Your task to perform on an android device: Open Google Maps and go to "Timeline" Image 0: 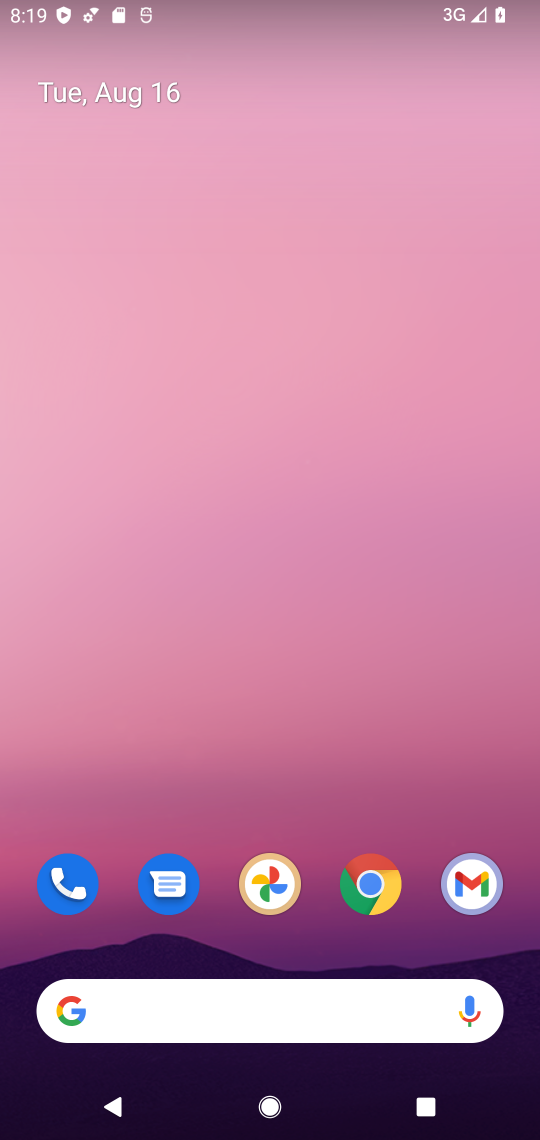
Step 0: drag from (424, 953) to (358, 271)
Your task to perform on an android device: Open Google Maps and go to "Timeline" Image 1: 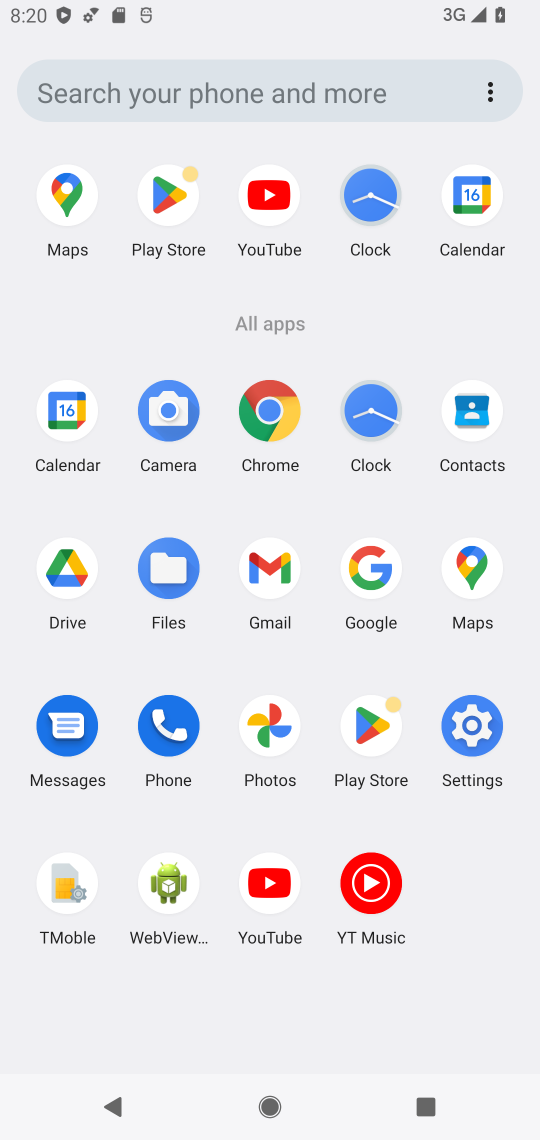
Step 1: click (466, 564)
Your task to perform on an android device: Open Google Maps and go to "Timeline" Image 2: 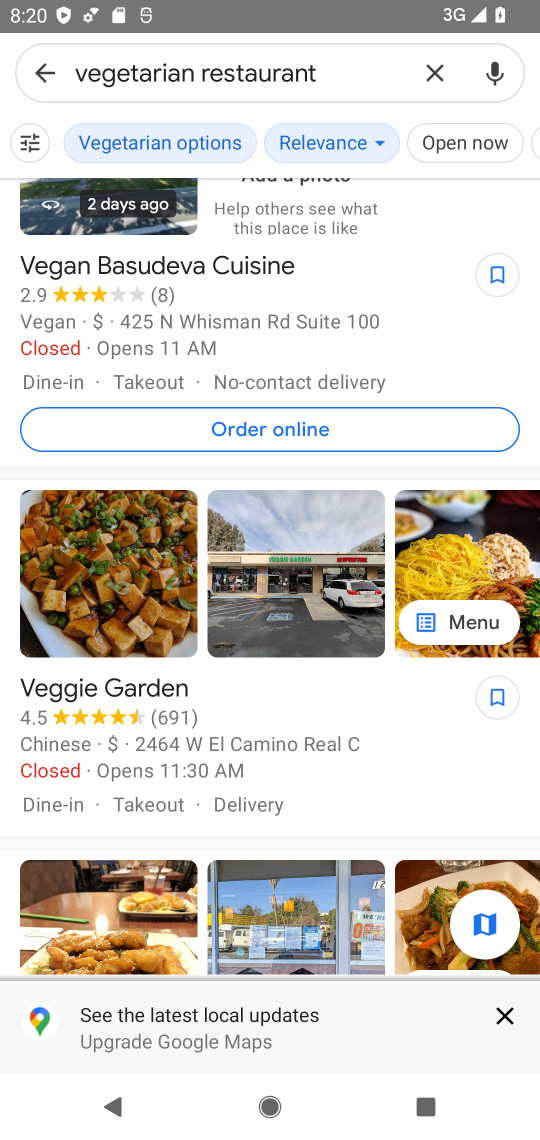
Step 2: click (433, 64)
Your task to perform on an android device: Open Google Maps and go to "Timeline" Image 3: 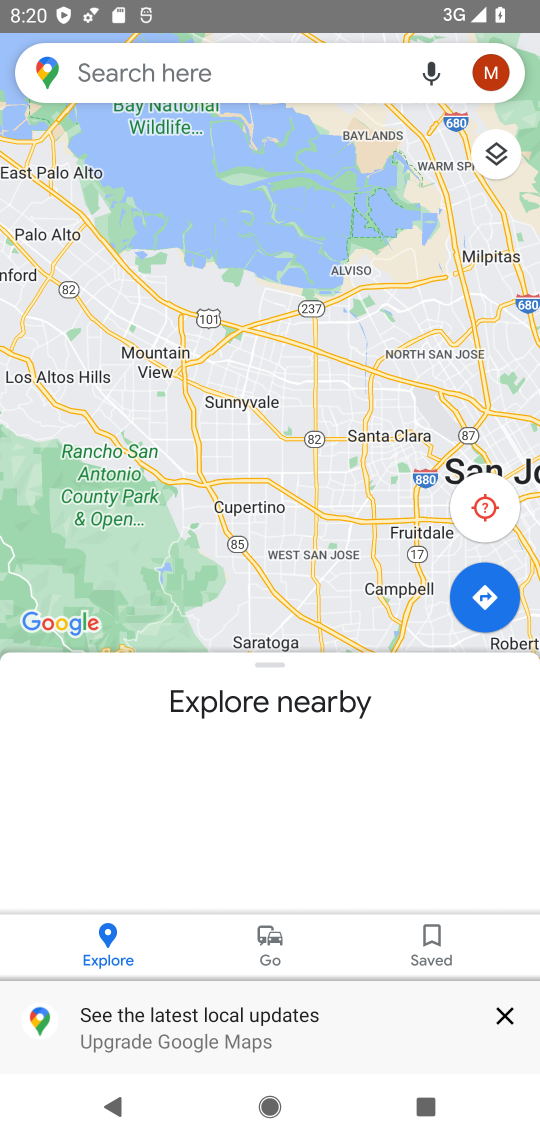
Step 3: click (275, 948)
Your task to perform on an android device: Open Google Maps and go to "Timeline" Image 4: 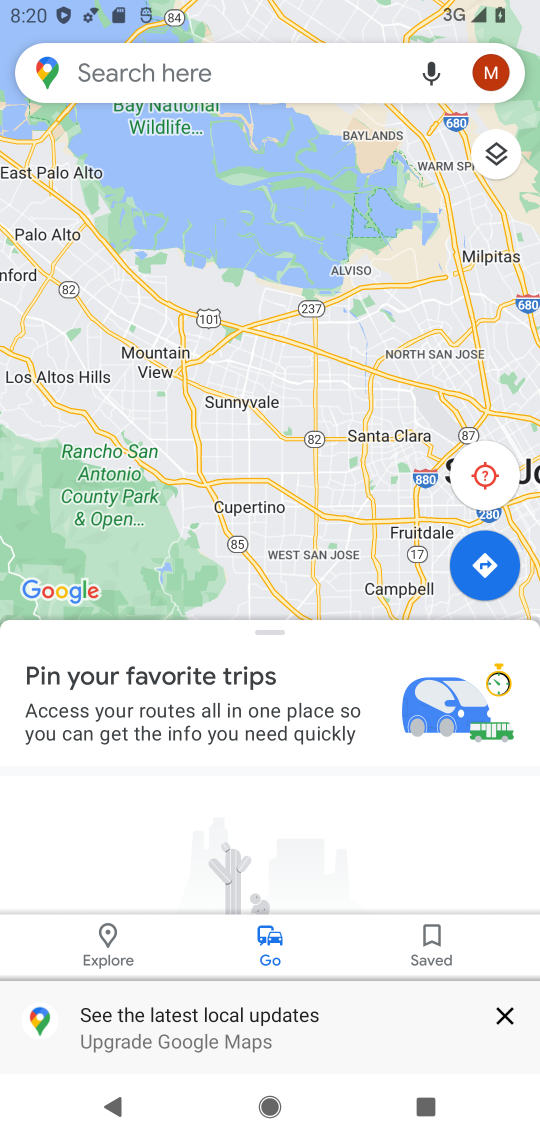
Step 4: click (107, 949)
Your task to perform on an android device: Open Google Maps and go to "Timeline" Image 5: 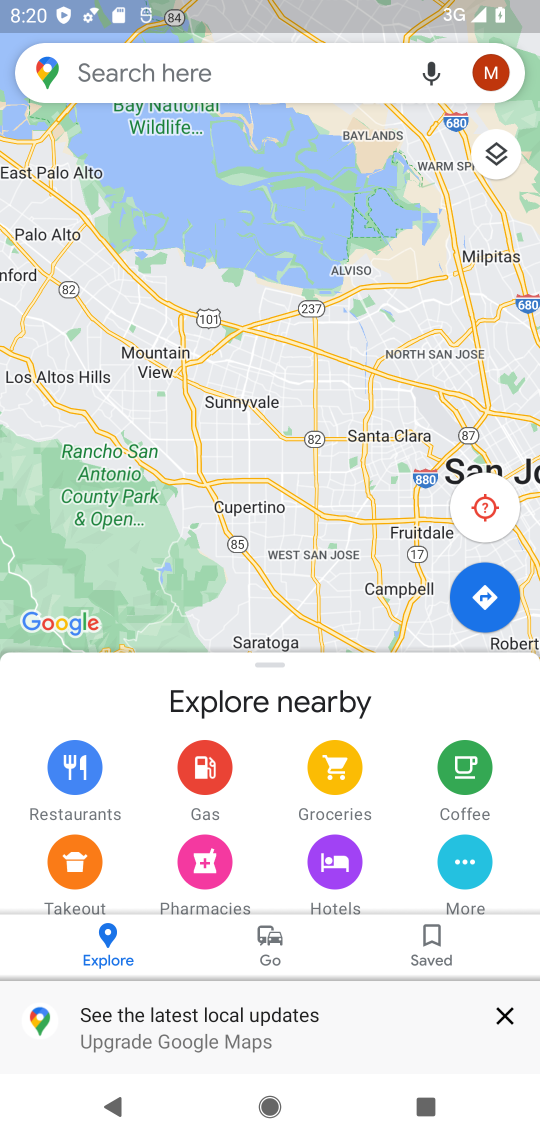
Step 5: click (425, 948)
Your task to perform on an android device: Open Google Maps and go to "Timeline" Image 6: 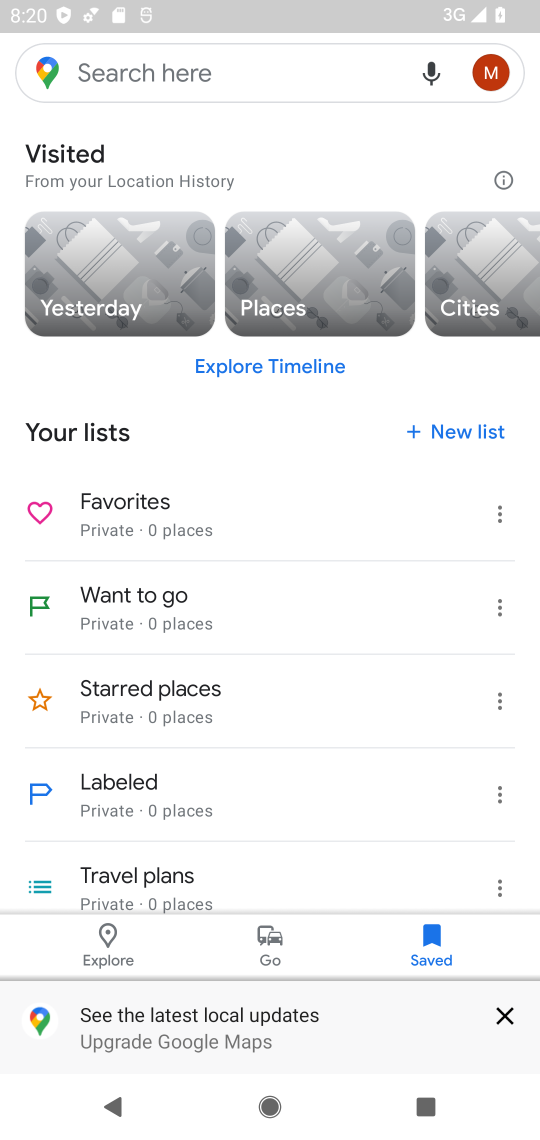
Step 6: drag from (301, 823) to (284, 196)
Your task to perform on an android device: Open Google Maps and go to "Timeline" Image 7: 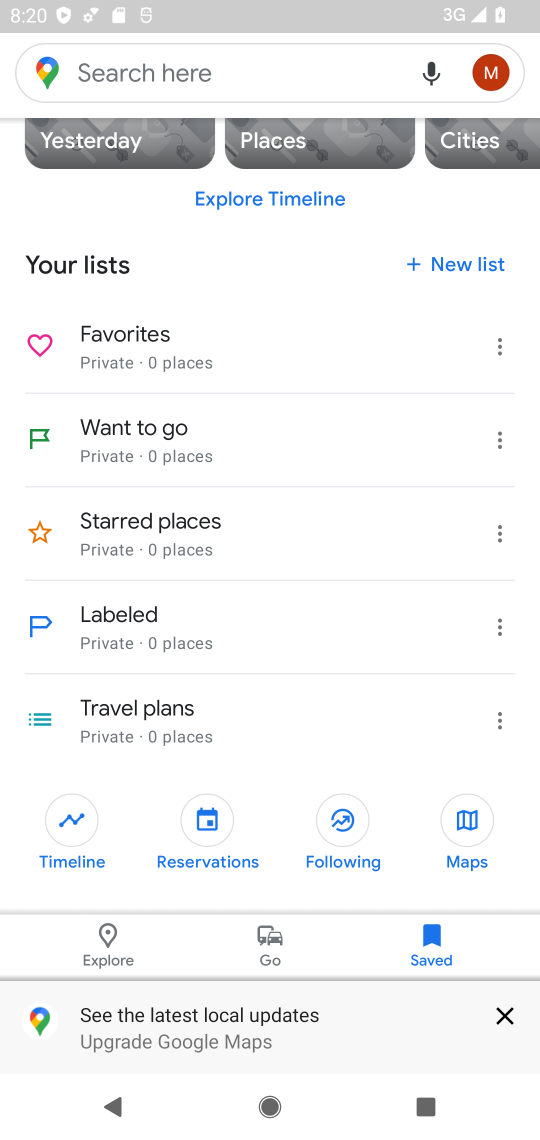
Step 7: click (105, 956)
Your task to perform on an android device: Open Google Maps and go to "Timeline" Image 8: 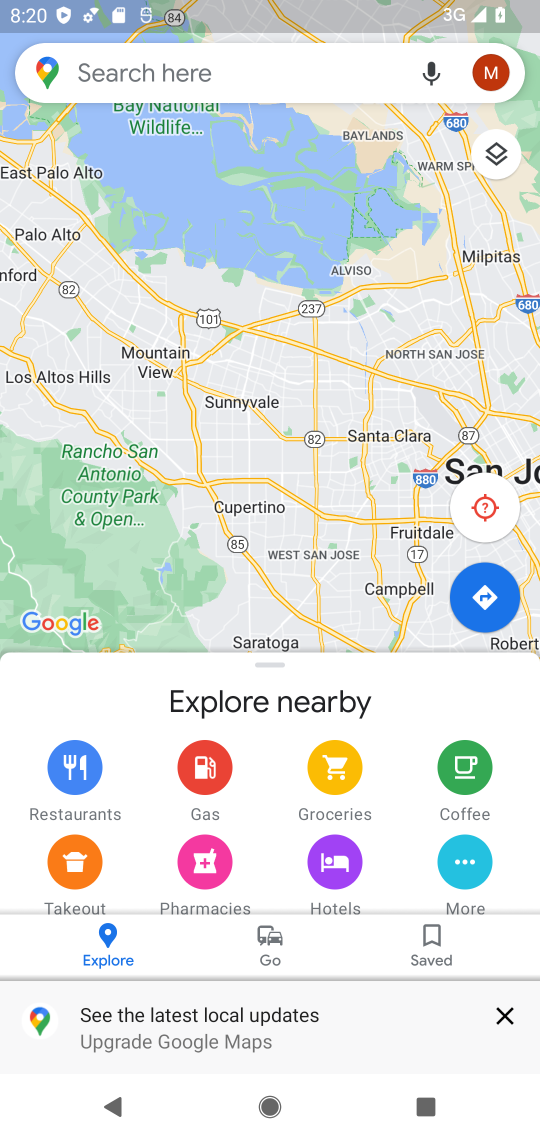
Step 8: click (495, 1014)
Your task to perform on an android device: Open Google Maps and go to "Timeline" Image 9: 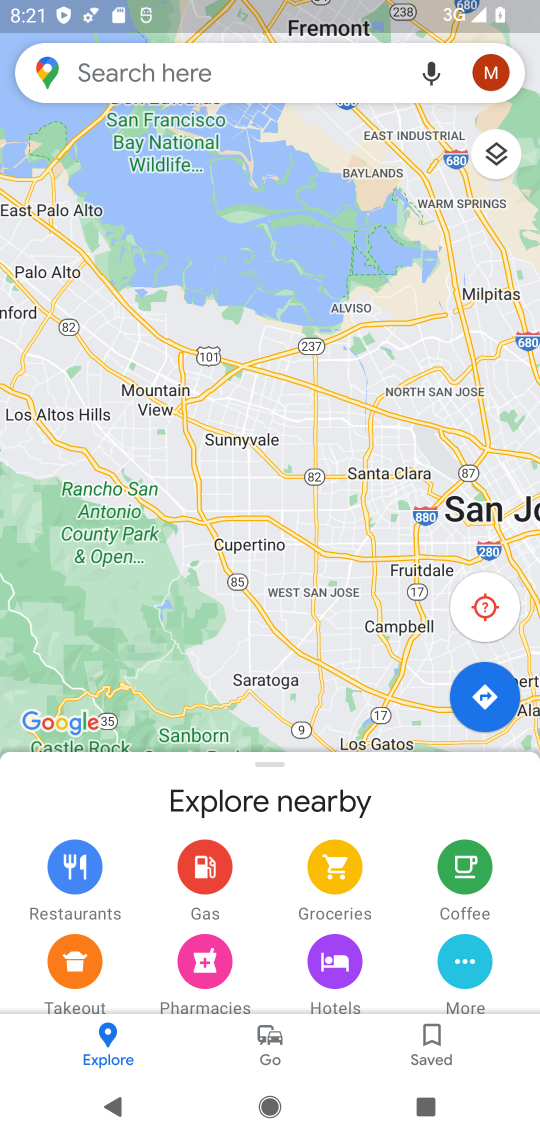
Step 9: click (498, 76)
Your task to perform on an android device: Open Google Maps and go to "Timeline" Image 10: 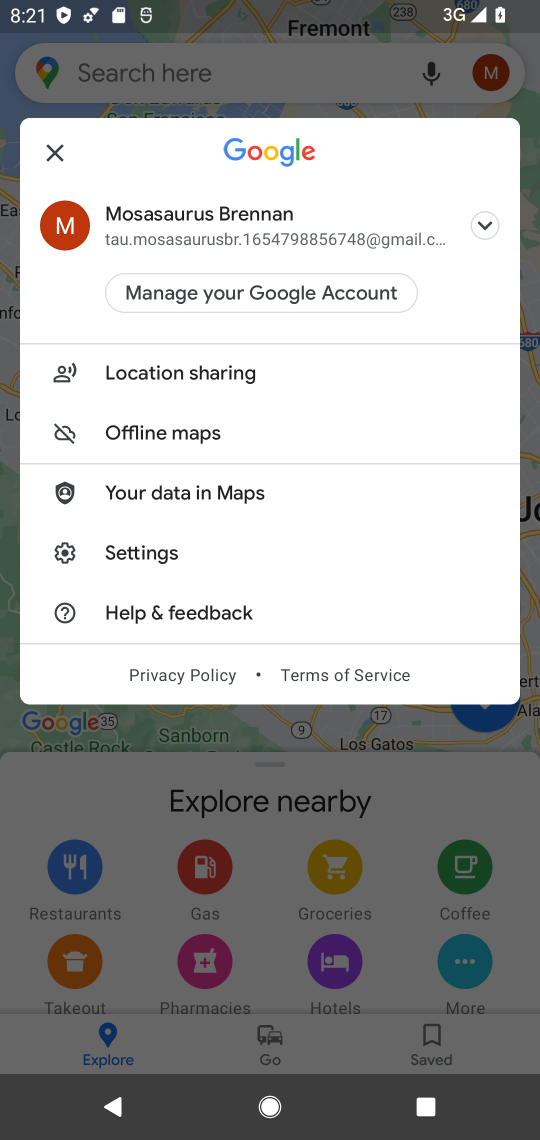
Step 10: click (157, 557)
Your task to perform on an android device: Open Google Maps and go to "Timeline" Image 11: 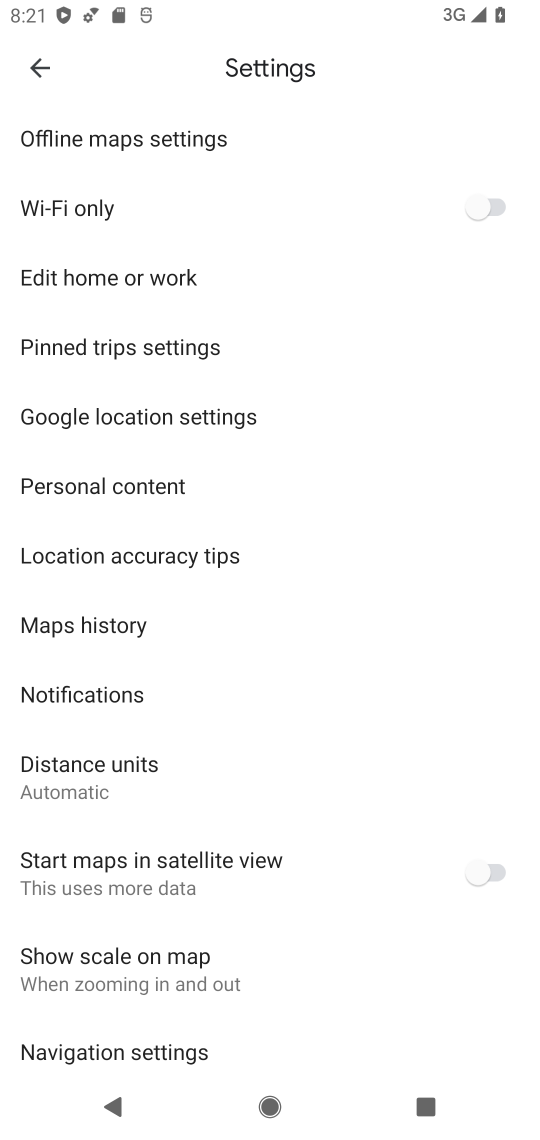
Step 11: drag from (316, 774) to (287, 344)
Your task to perform on an android device: Open Google Maps and go to "Timeline" Image 12: 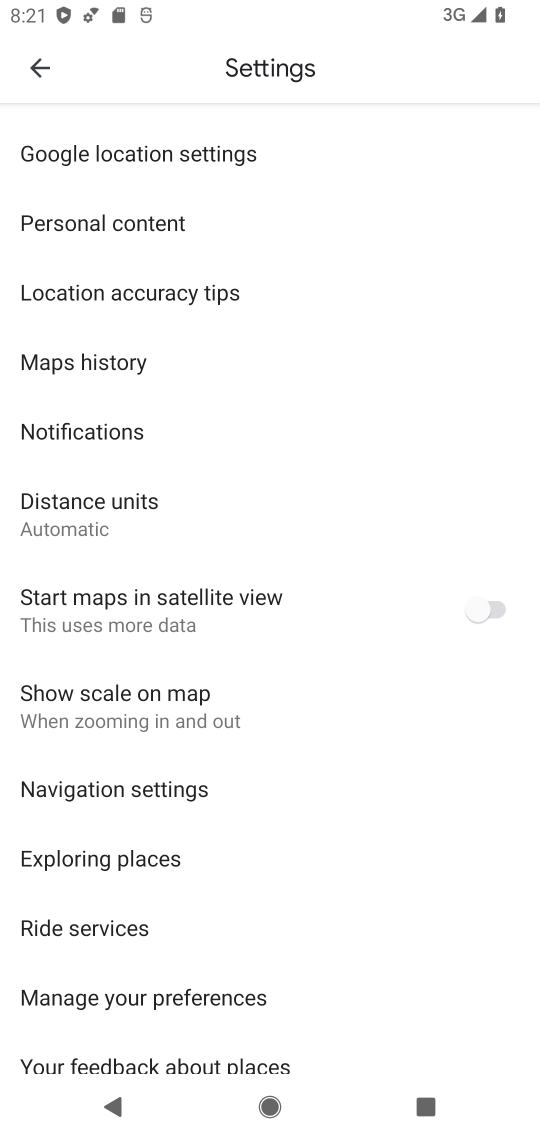
Step 12: drag from (366, 1000) to (363, 397)
Your task to perform on an android device: Open Google Maps and go to "Timeline" Image 13: 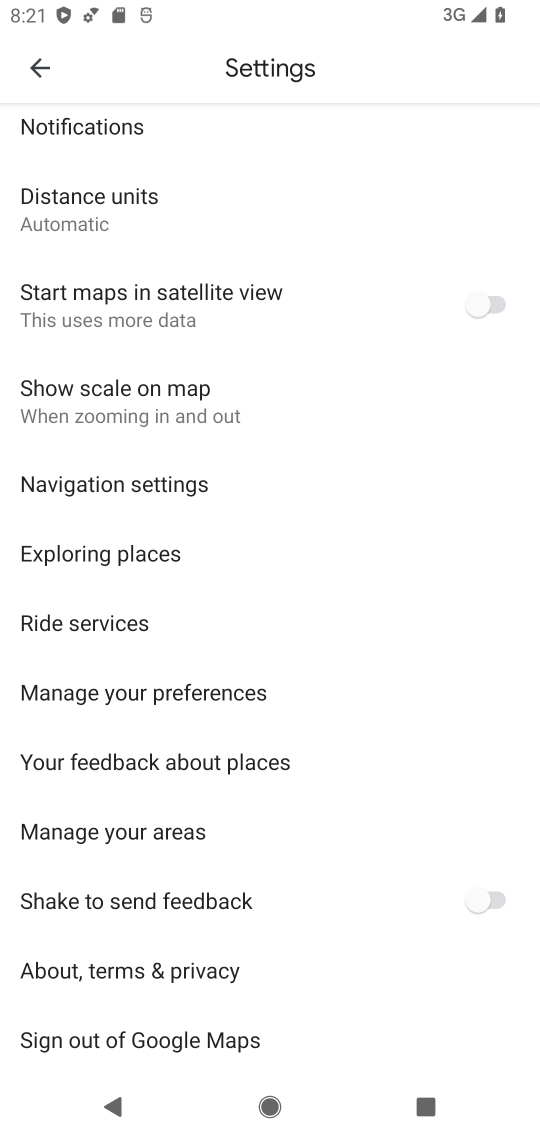
Step 13: drag from (335, 985) to (361, 342)
Your task to perform on an android device: Open Google Maps and go to "Timeline" Image 14: 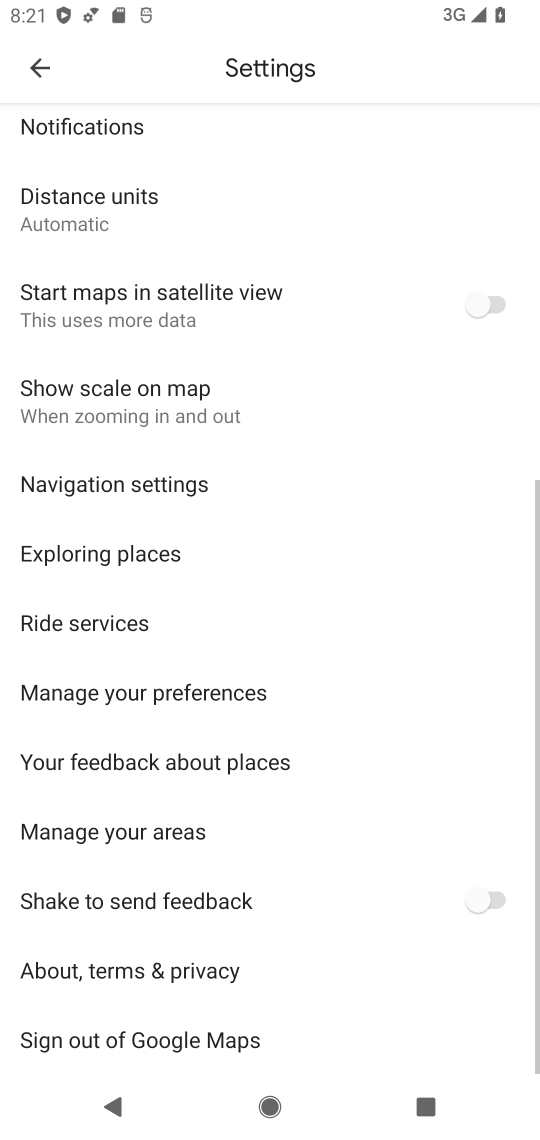
Step 14: drag from (361, 342) to (380, 703)
Your task to perform on an android device: Open Google Maps and go to "Timeline" Image 15: 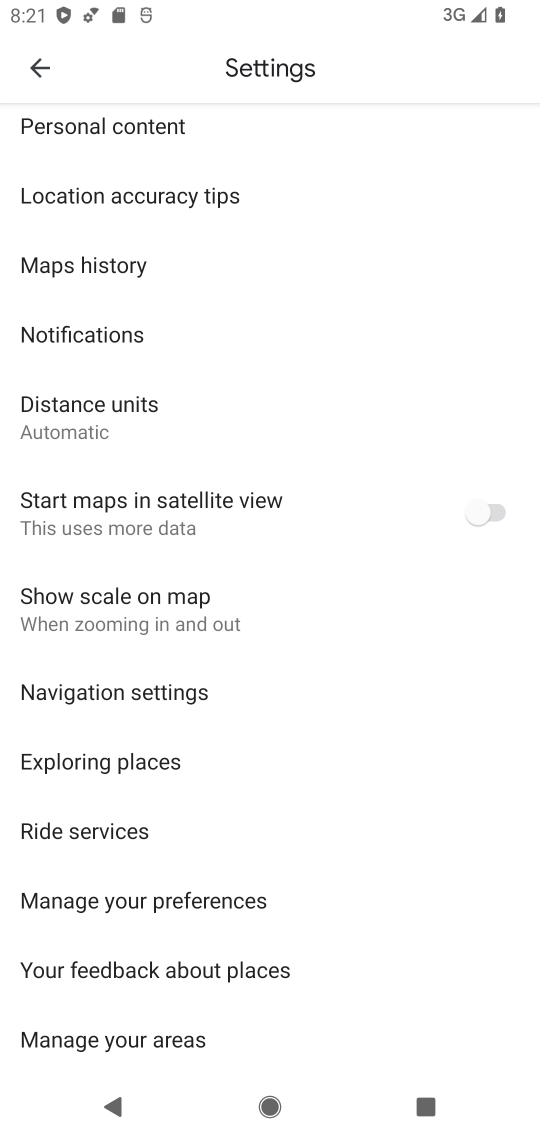
Step 15: drag from (402, 297) to (387, 805)
Your task to perform on an android device: Open Google Maps and go to "Timeline" Image 16: 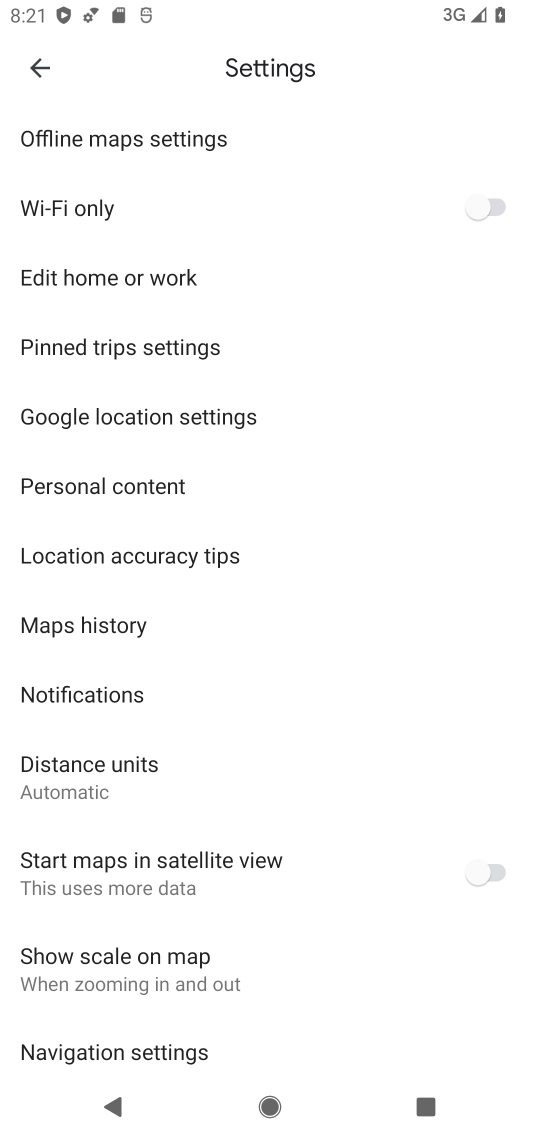
Step 16: click (81, 465)
Your task to perform on an android device: Open Google Maps and go to "Timeline" Image 17: 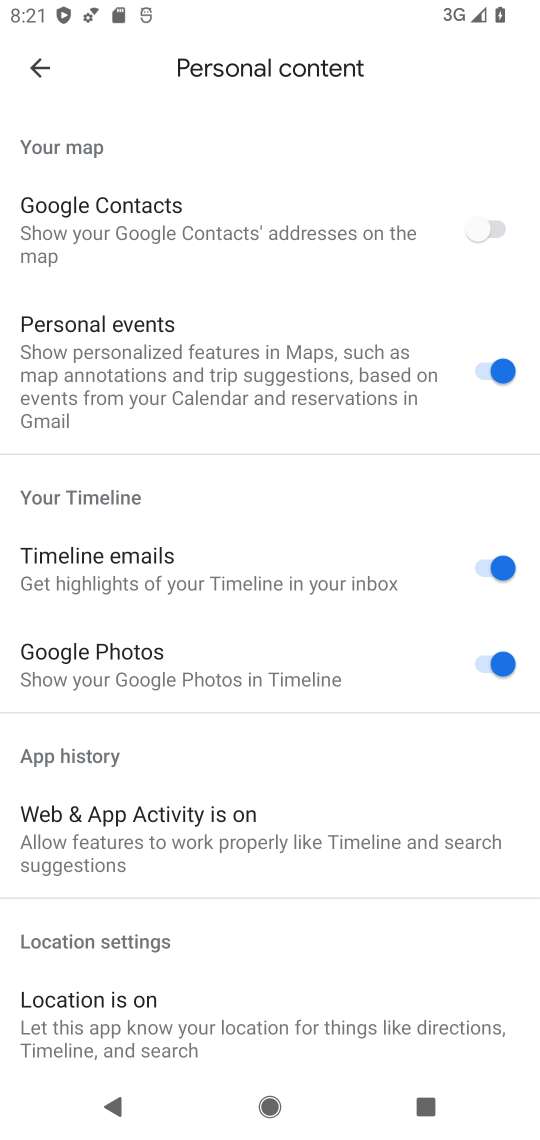
Step 17: task complete